Your task to perform on an android device: Search for pizza restaurants on Maps Image 0: 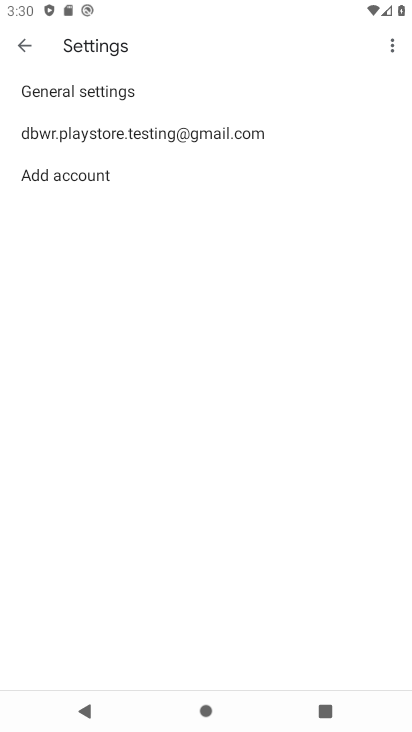
Step 0: press home button
Your task to perform on an android device: Search for pizza restaurants on Maps Image 1: 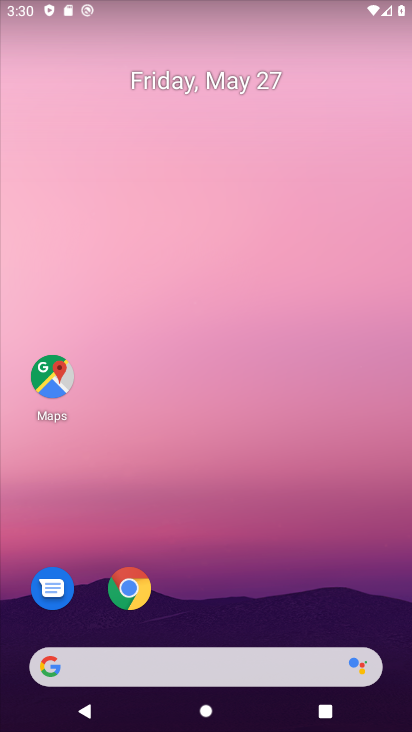
Step 1: click (59, 370)
Your task to perform on an android device: Search for pizza restaurants on Maps Image 2: 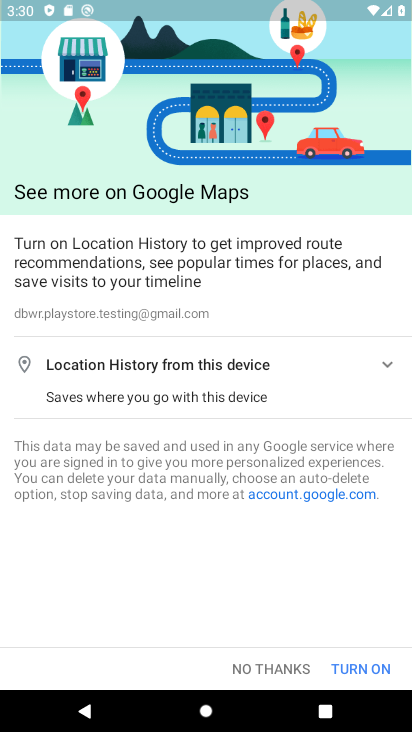
Step 2: click (367, 667)
Your task to perform on an android device: Search for pizza restaurants on Maps Image 3: 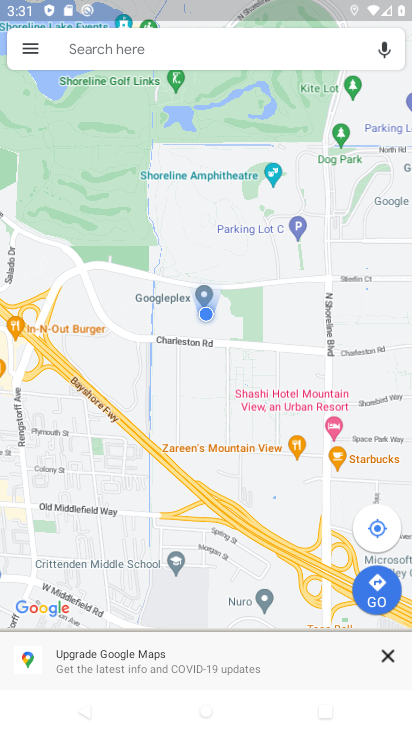
Step 3: click (160, 40)
Your task to perform on an android device: Search for pizza restaurants on Maps Image 4: 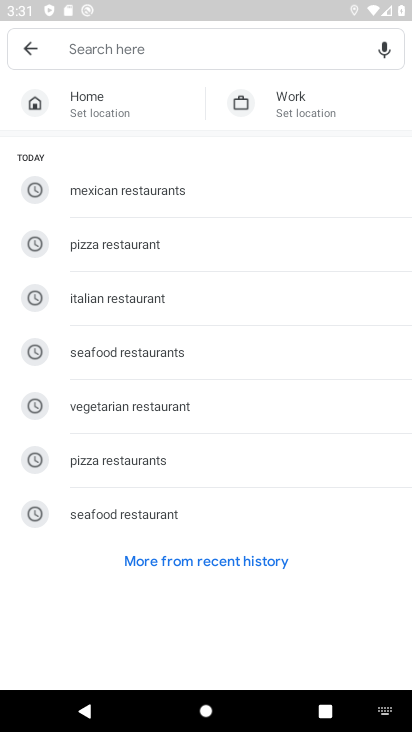
Step 4: click (147, 243)
Your task to perform on an android device: Search for pizza restaurants on Maps Image 5: 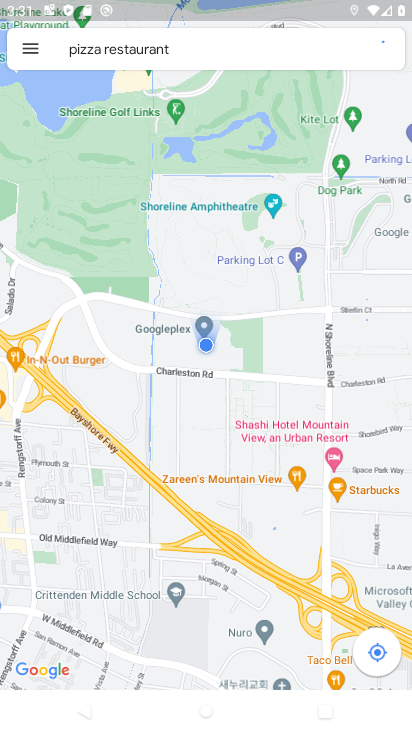
Step 5: task complete